Your task to perform on an android device: Do I have any events this weekend? Image 0: 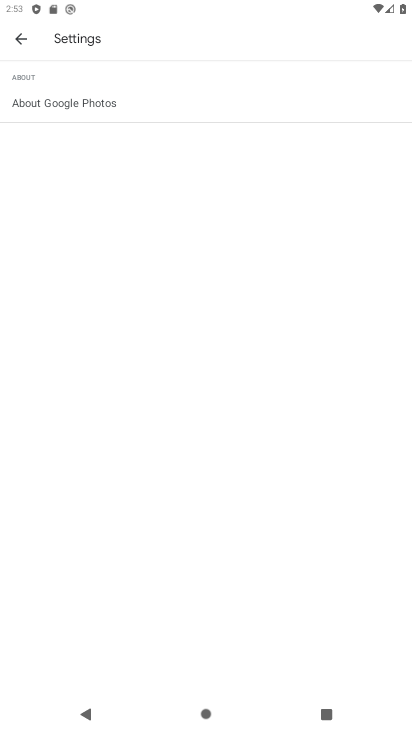
Step 0: press home button
Your task to perform on an android device: Do I have any events this weekend? Image 1: 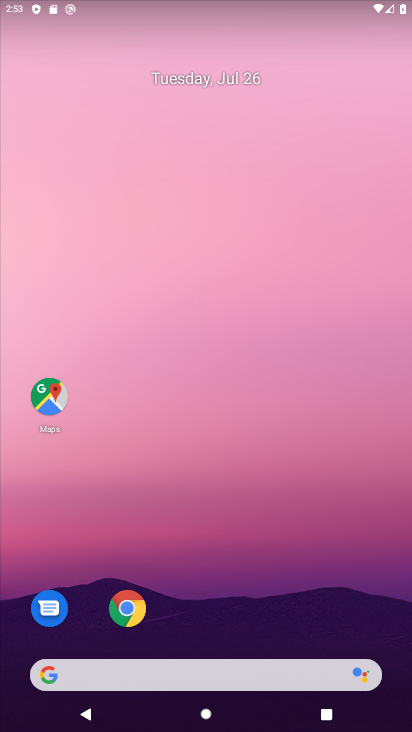
Step 1: drag from (226, 658) to (87, 16)
Your task to perform on an android device: Do I have any events this weekend? Image 2: 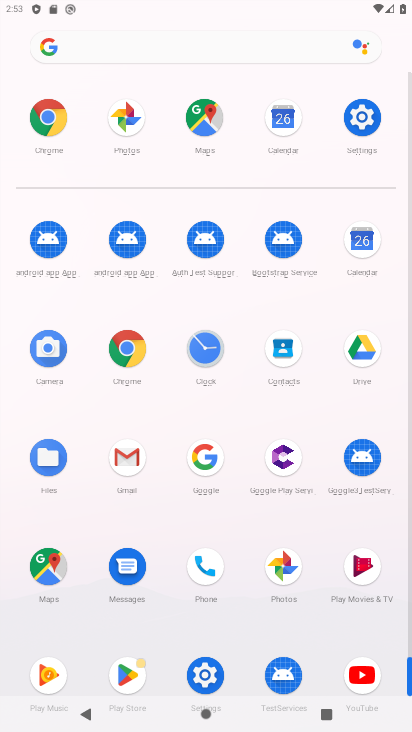
Step 2: click (360, 256)
Your task to perform on an android device: Do I have any events this weekend? Image 3: 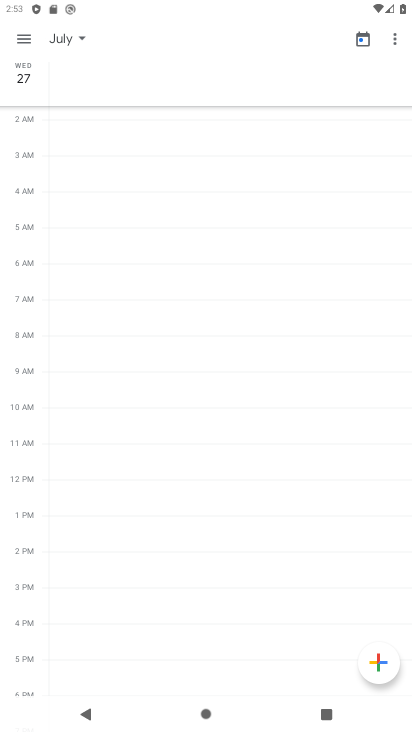
Step 3: click (16, 41)
Your task to perform on an android device: Do I have any events this weekend? Image 4: 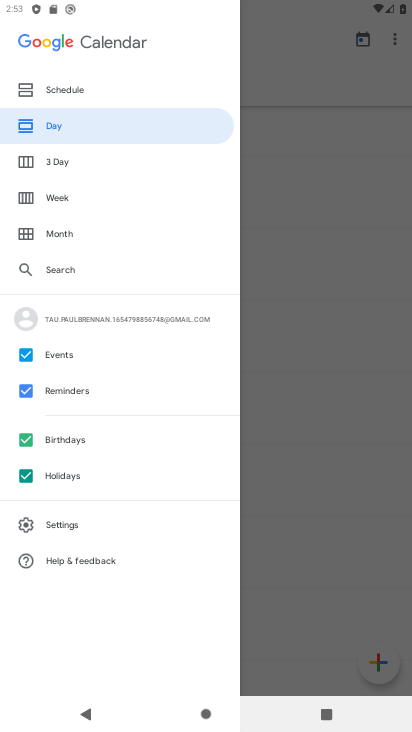
Step 4: click (90, 393)
Your task to perform on an android device: Do I have any events this weekend? Image 5: 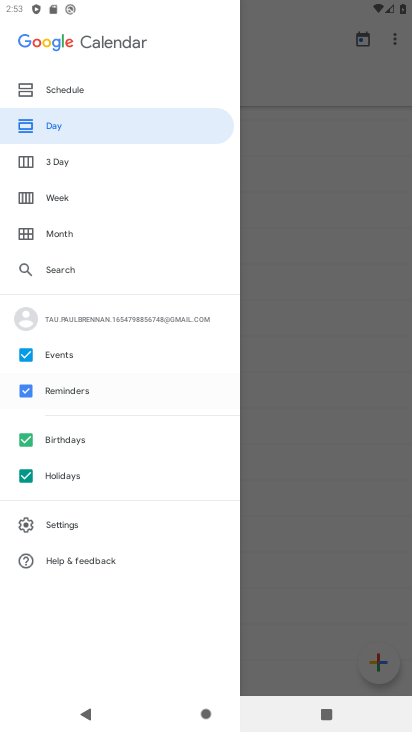
Step 5: click (74, 439)
Your task to perform on an android device: Do I have any events this weekend? Image 6: 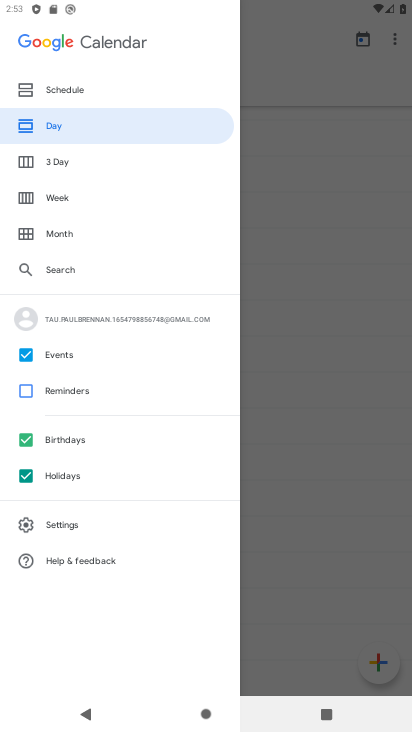
Step 6: click (63, 470)
Your task to perform on an android device: Do I have any events this weekend? Image 7: 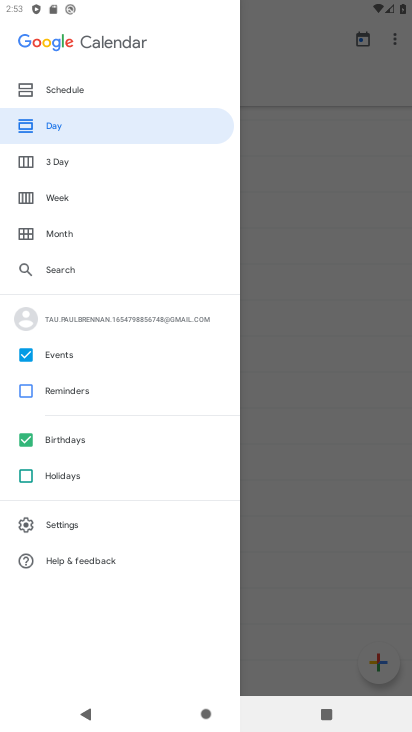
Step 7: click (64, 441)
Your task to perform on an android device: Do I have any events this weekend? Image 8: 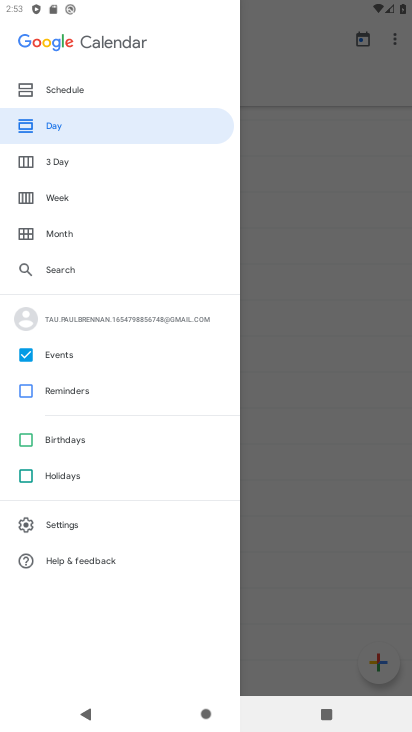
Step 8: click (68, 196)
Your task to perform on an android device: Do I have any events this weekend? Image 9: 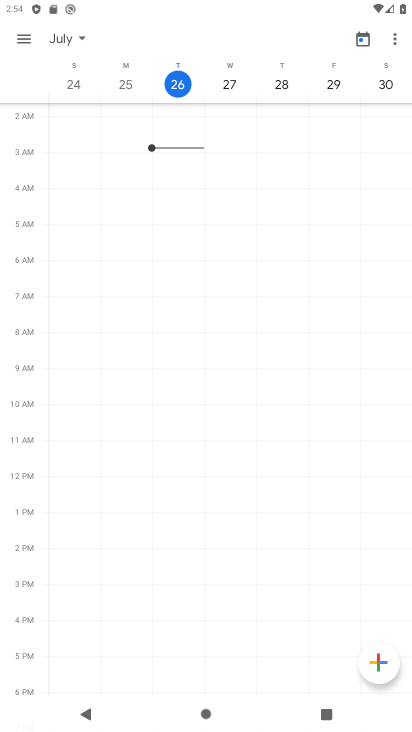
Step 9: task complete